Your task to perform on an android device: toggle improve location accuracy Image 0: 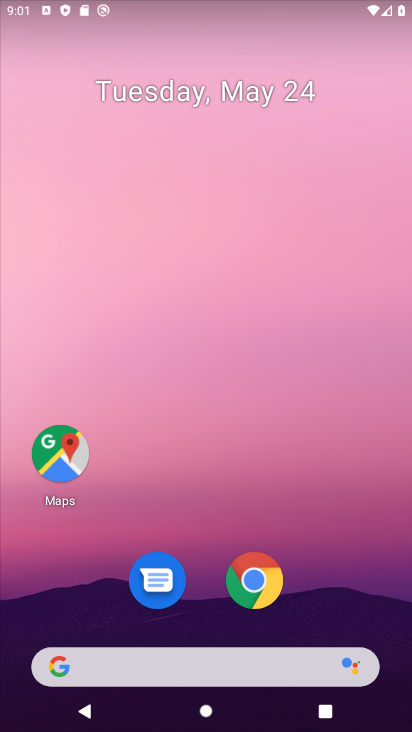
Step 0: press home button
Your task to perform on an android device: toggle improve location accuracy Image 1: 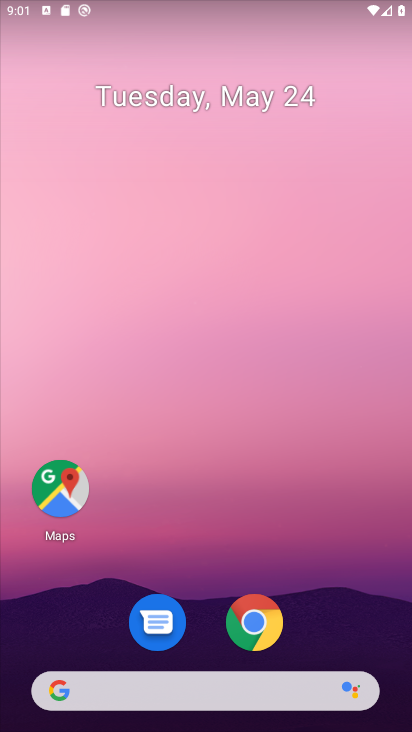
Step 1: click (221, 345)
Your task to perform on an android device: toggle improve location accuracy Image 2: 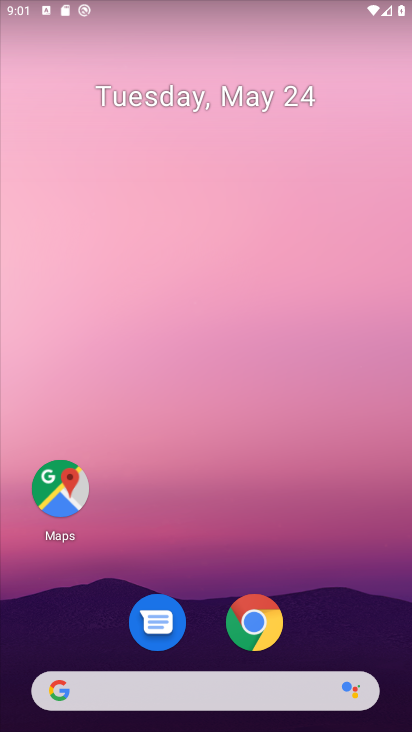
Step 2: drag from (249, 709) to (257, 154)
Your task to perform on an android device: toggle improve location accuracy Image 3: 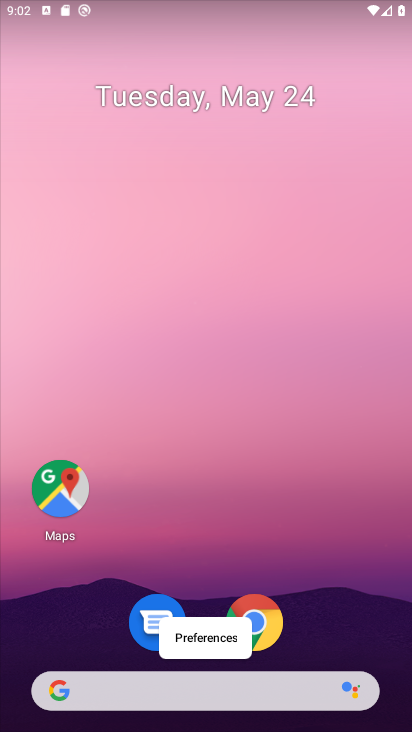
Step 3: drag from (216, 713) to (218, 132)
Your task to perform on an android device: toggle improve location accuracy Image 4: 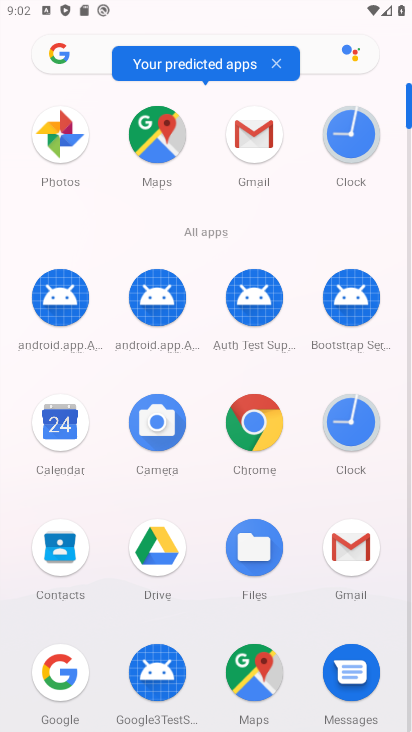
Step 4: drag from (113, 508) to (126, 399)
Your task to perform on an android device: toggle improve location accuracy Image 5: 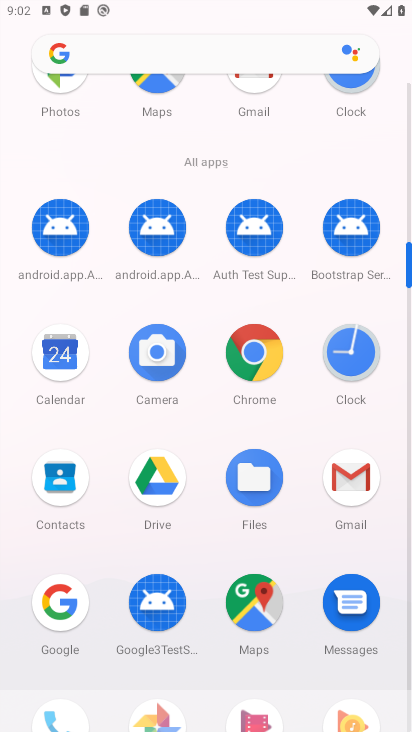
Step 5: drag from (115, 546) to (122, 424)
Your task to perform on an android device: toggle improve location accuracy Image 6: 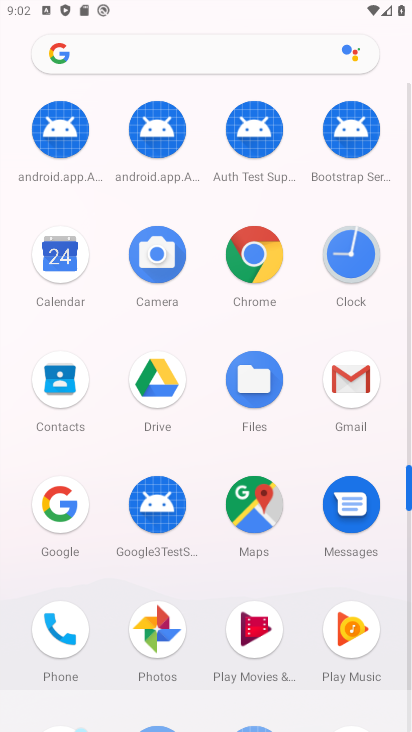
Step 6: drag from (115, 573) to (113, 450)
Your task to perform on an android device: toggle improve location accuracy Image 7: 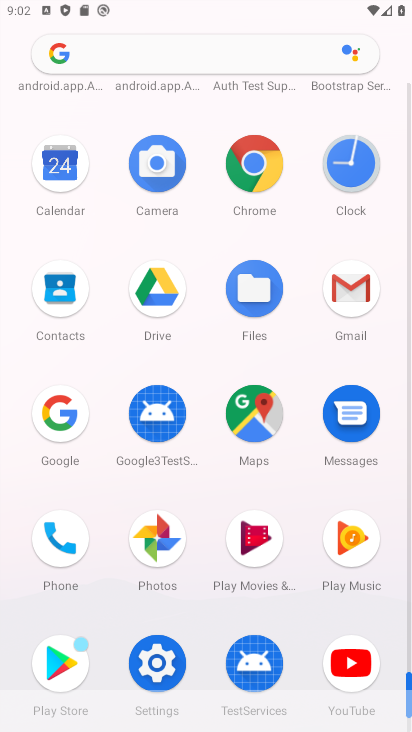
Step 7: click (145, 654)
Your task to perform on an android device: toggle improve location accuracy Image 8: 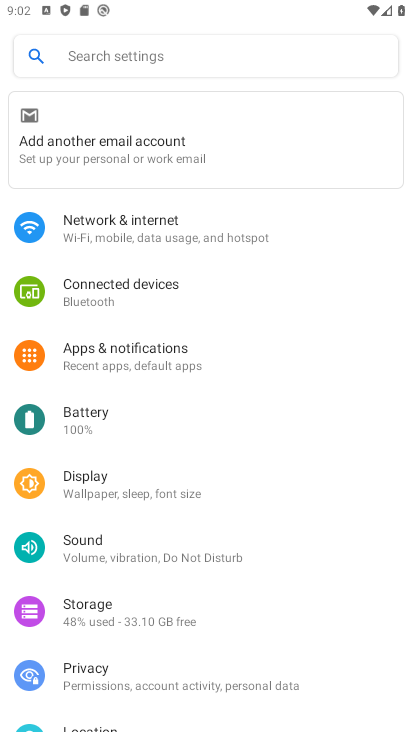
Step 8: click (150, 64)
Your task to perform on an android device: toggle improve location accuracy Image 9: 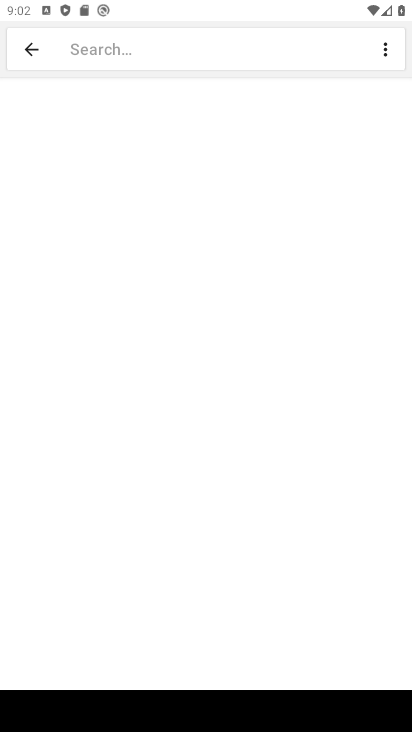
Step 9: drag from (385, 714) to (357, 492)
Your task to perform on an android device: toggle improve location accuracy Image 10: 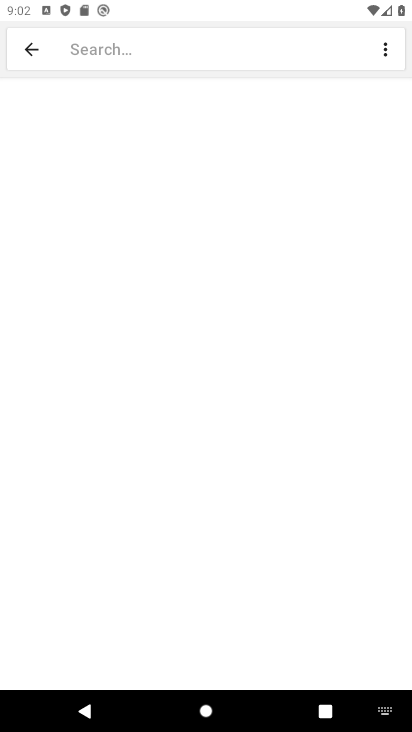
Step 10: click (387, 708)
Your task to perform on an android device: toggle improve location accuracy Image 11: 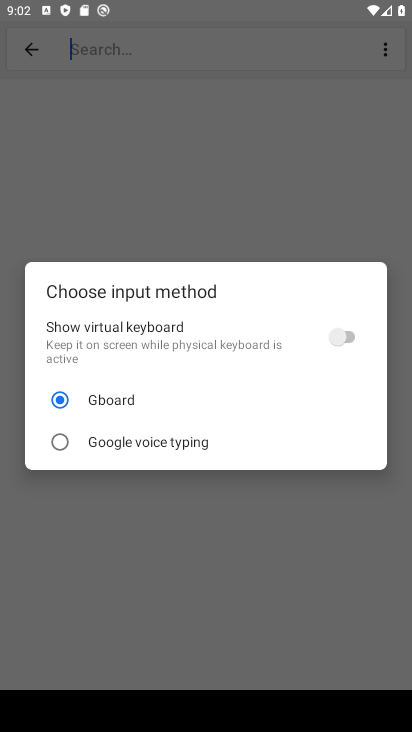
Step 11: click (345, 334)
Your task to perform on an android device: toggle improve location accuracy Image 12: 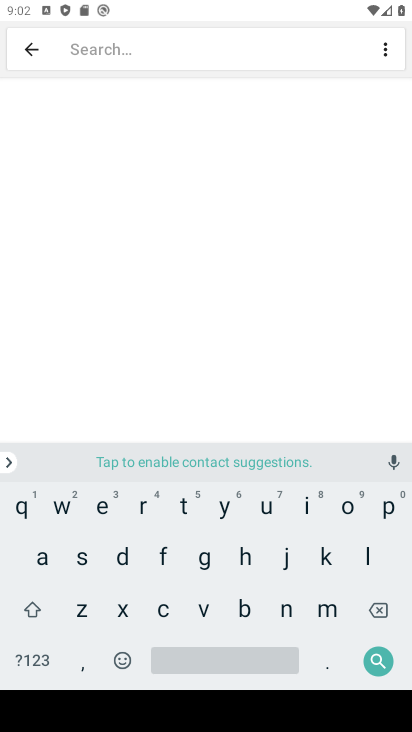
Step 12: click (367, 555)
Your task to perform on an android device: toggle improve location accuracy Image 13: 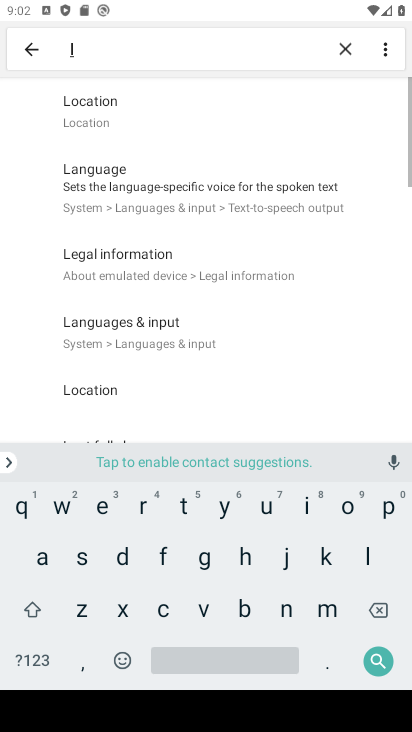
Step 13: click (349, 506)
Your task to perform on an android device: toggle improve location accuracy Image 14: 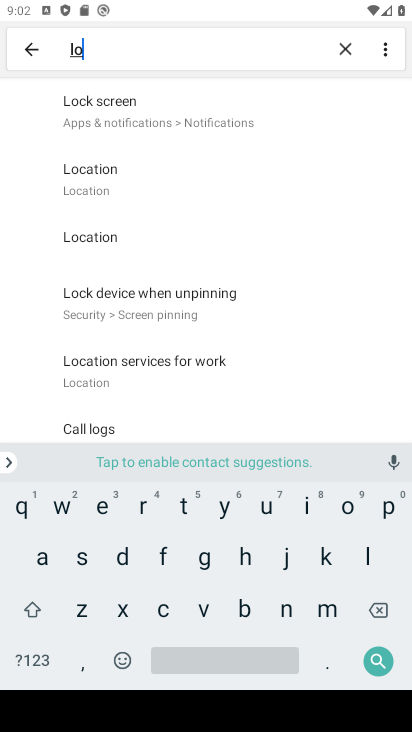
Step 14: click (117, 175)
Your task to perform on an android device: toggle improve location accuracy Image 15: 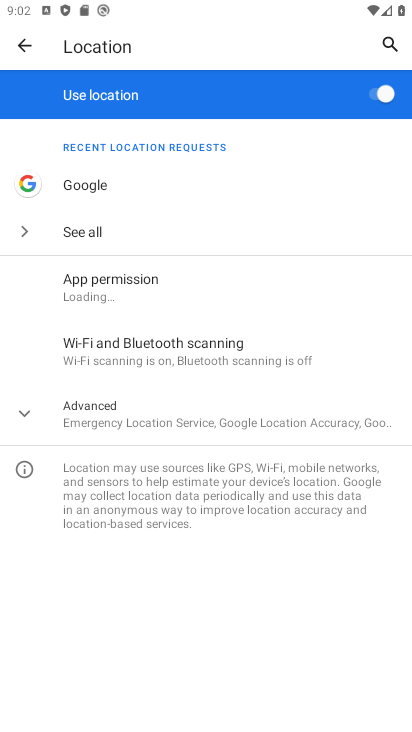
Step 15: click (61, 408)
Your task to perform on an android device: toggle improve location accuracy Image 16: 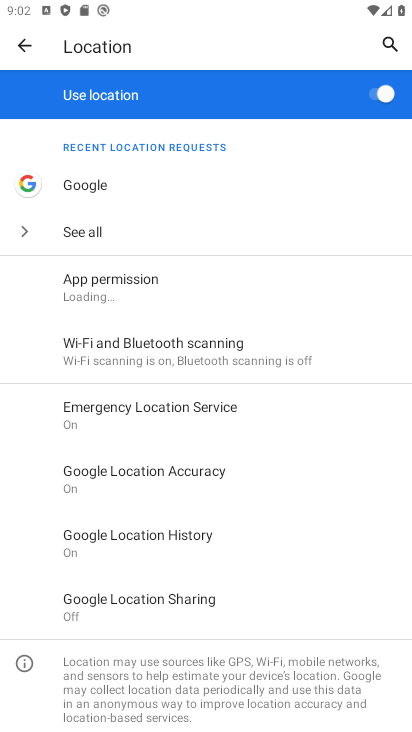
Step 16: click (157, 469)
Your task to perform on an android device: toggle improve location accuracy Image 17: 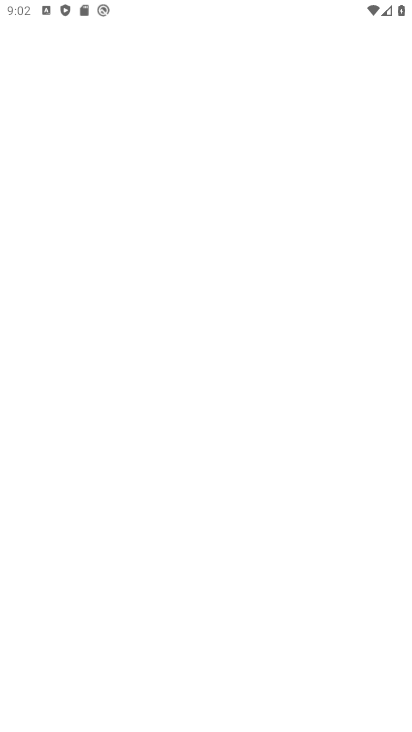
Step 17: task complete